Your task to perform on an android device: change alarm snooze length Image 0: 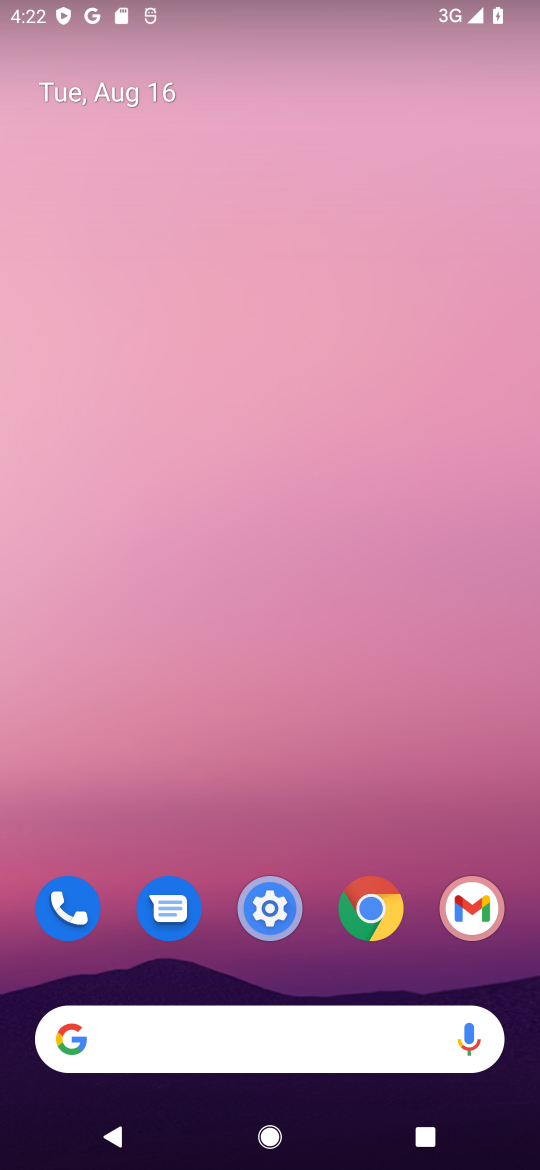
Step 0: drag from (284, 675) to (287, 114)
Your task to perform on an android device: change alarm snooze length Image 1: 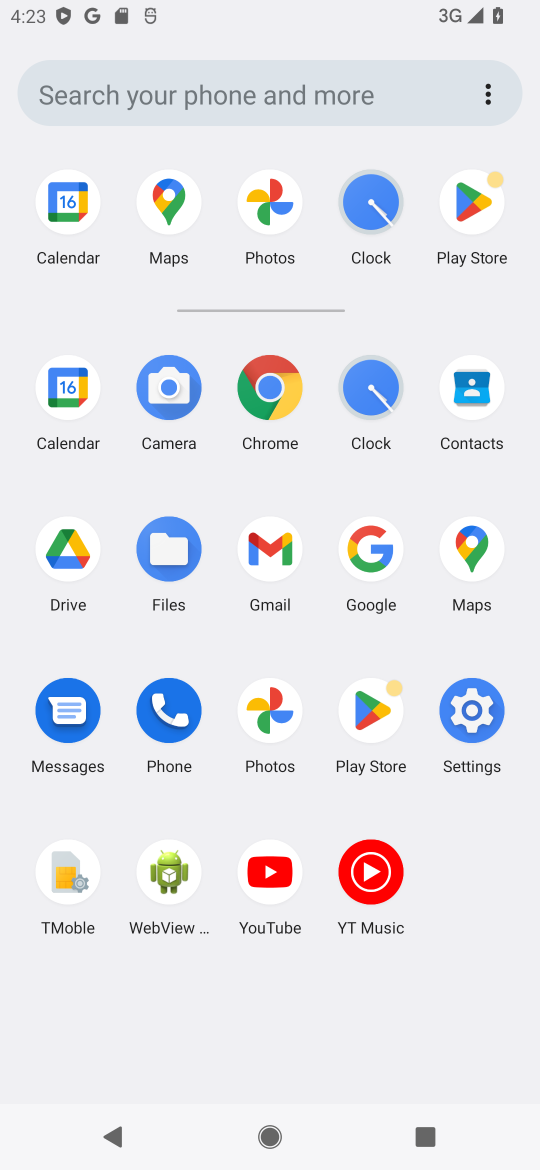
Step 1: click (365, 382)
Your task to perform on an android device: change alarm snooze length Image 2: 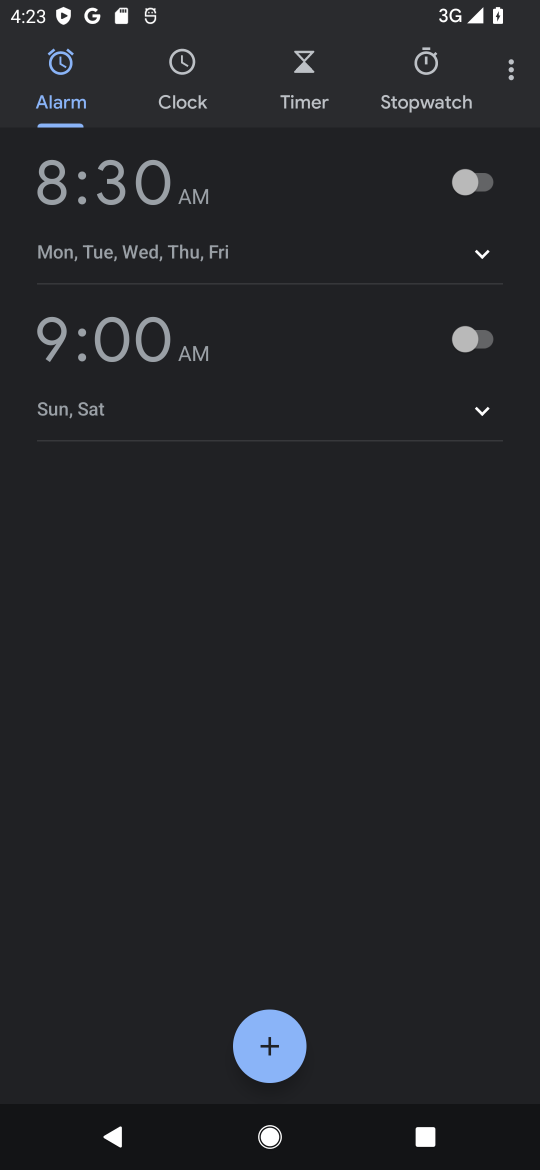
Step 2: click (511, 62)
Your task to perform on an android device: change alarm snooze length Image 3: 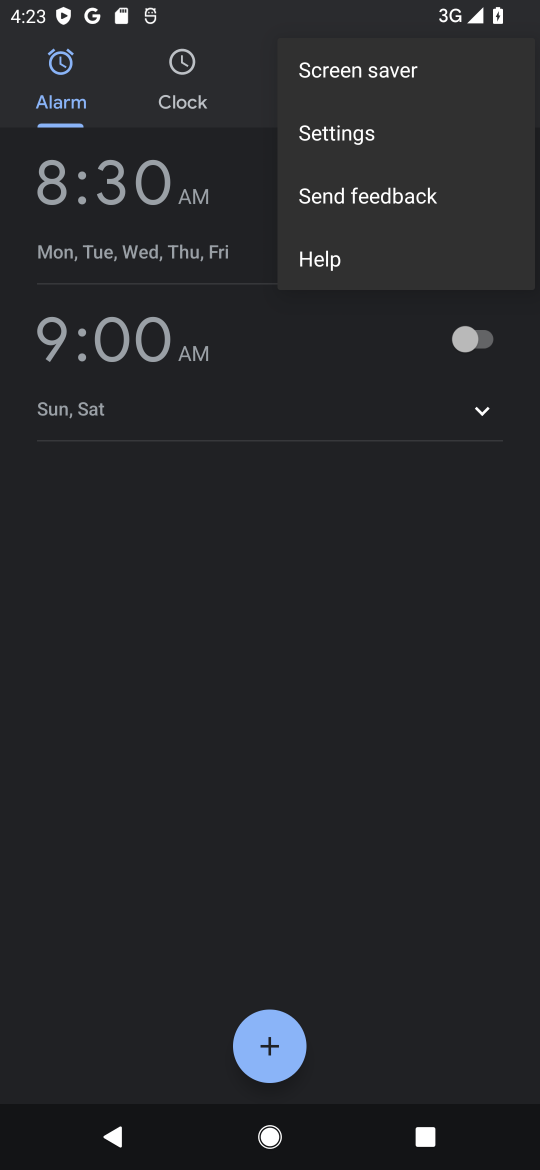
Step 3: click (340, 131)
Your task to perform on an android device: change alarm snooze length Image 4: 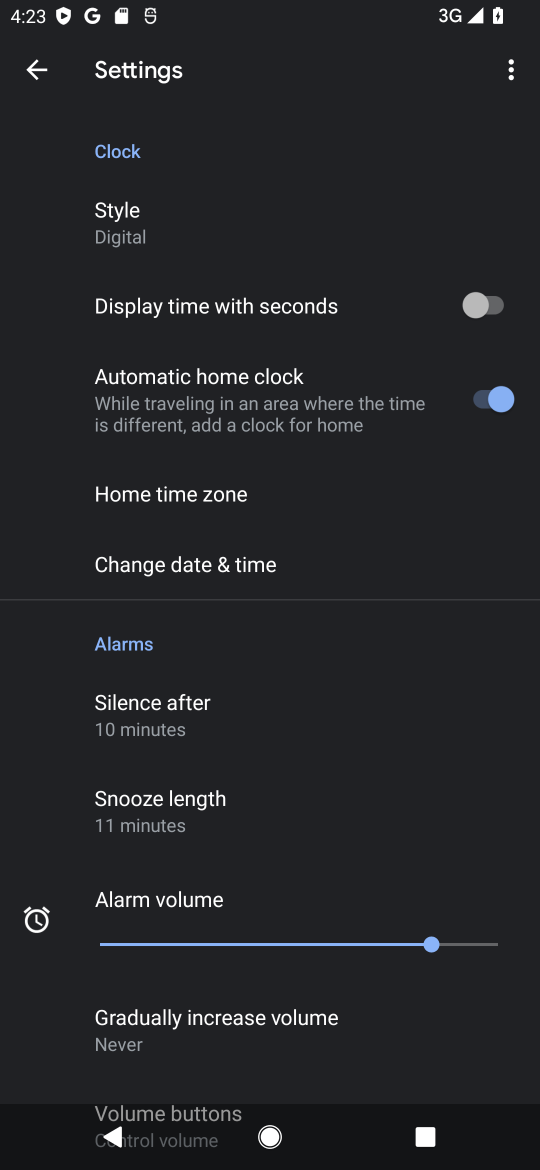
Step 4: click (231, 833)
Your task to perform on an android device: change alarm snooze length Image 5: 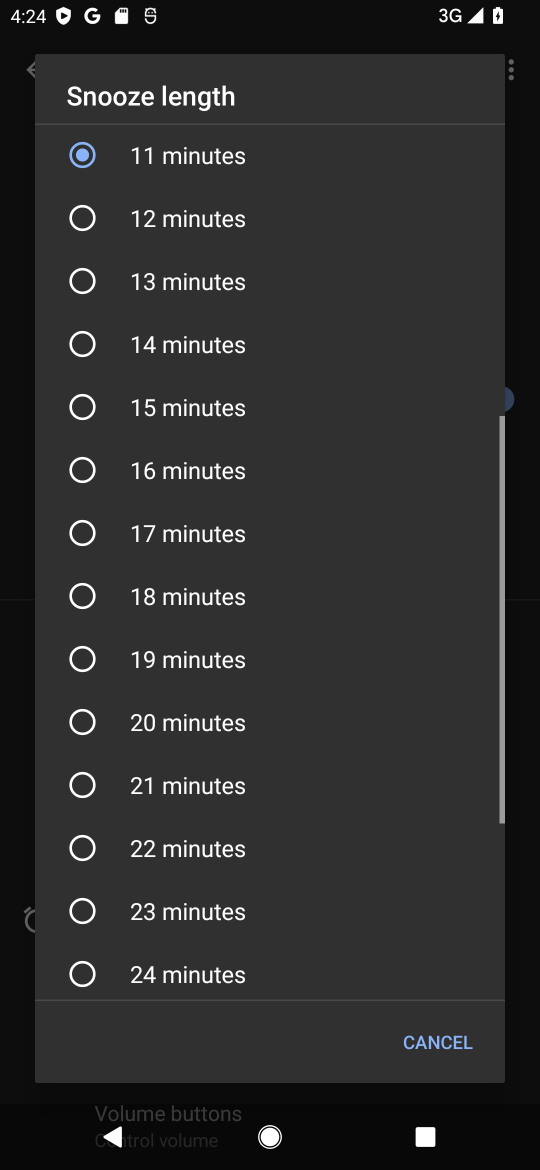
Step 5: click (80, 269)
Your task to perform on an android device: change alarm snooze length Image 6: 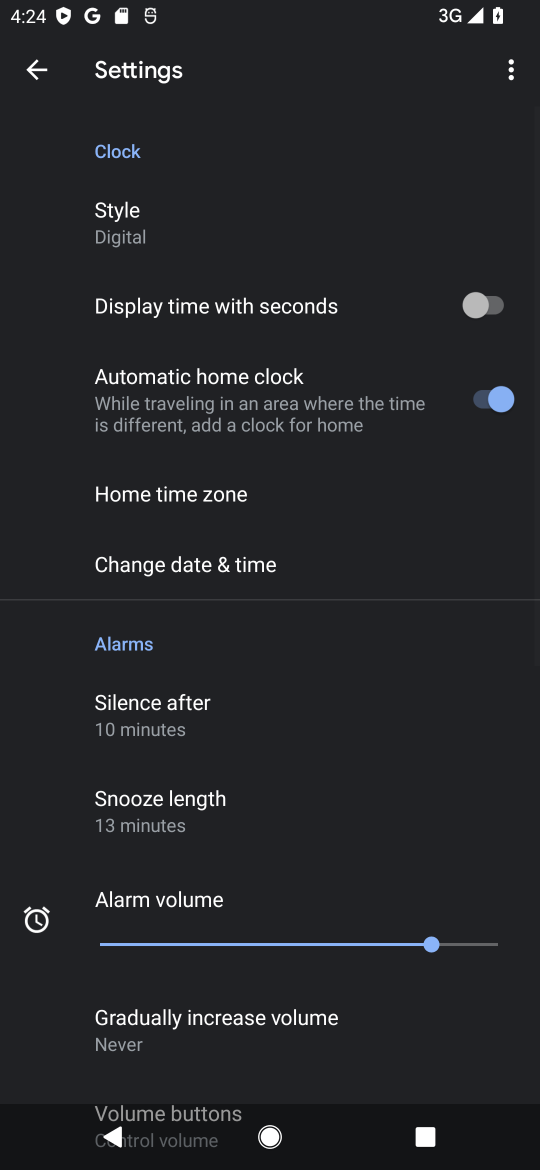
Step 6: task complete